Your task to perform on an android device: Go to calendar. Show me events next week Image 0: 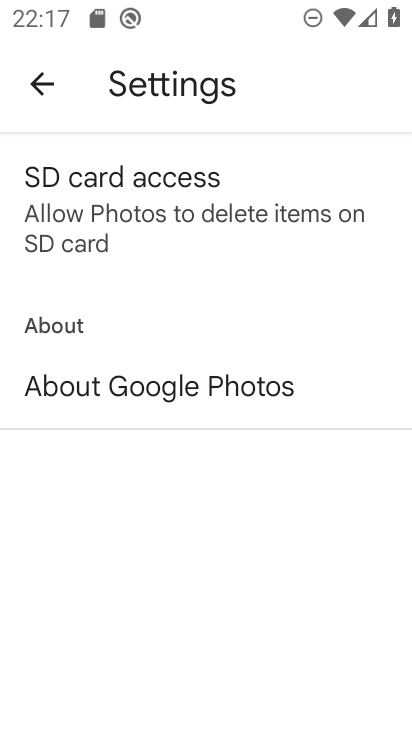
Step 0: press home button
Your task to perform on an android device: Go to calendar. Show me events next week Image 1: 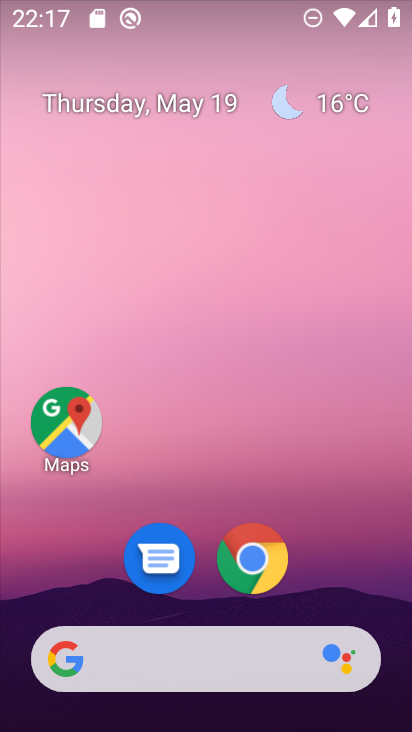
Step 1: drag from (227, 722) to (227, 139)
Your task to perform on an android device: Go to calendar. Show me events next week Image 2: 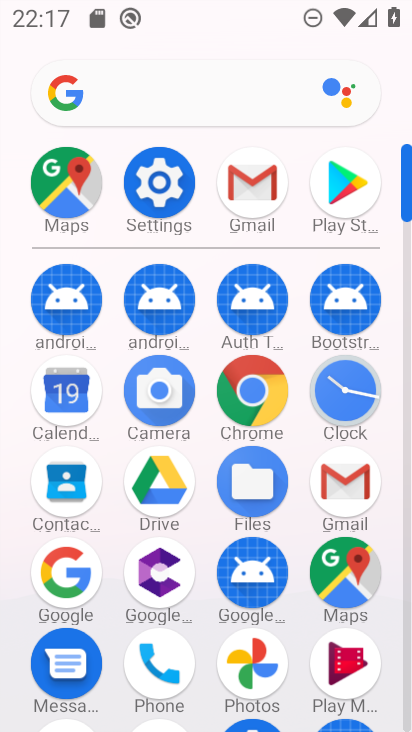
Step 2: click (52, 392)
Your task to perform on an android device: Go to calendar. Show me events next week Image 3: 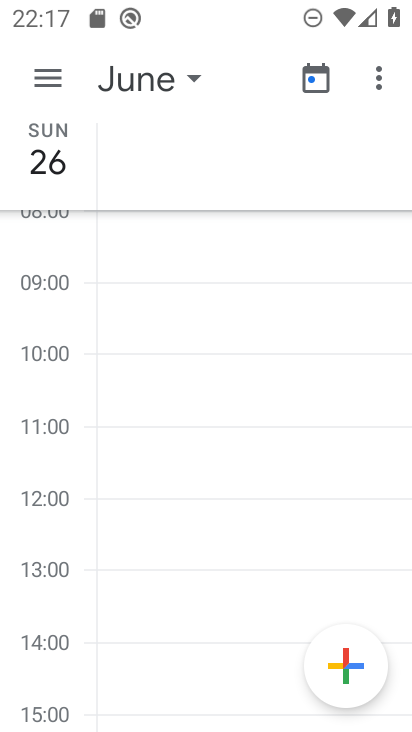
Step 3: click (152, 82)
Your task to perform on an android device: Go to calendar. Show me events next week Image 4: 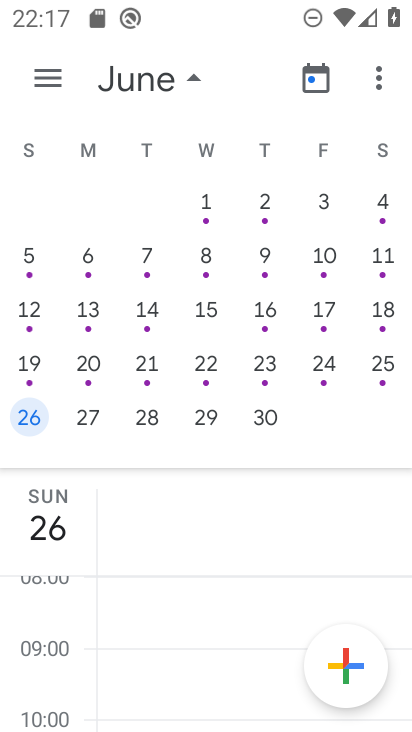
Step 4: drag from (326, 308) to (268, 305)
Your task to perform on an android device: Go to calendar. Show me events next week Image 5: 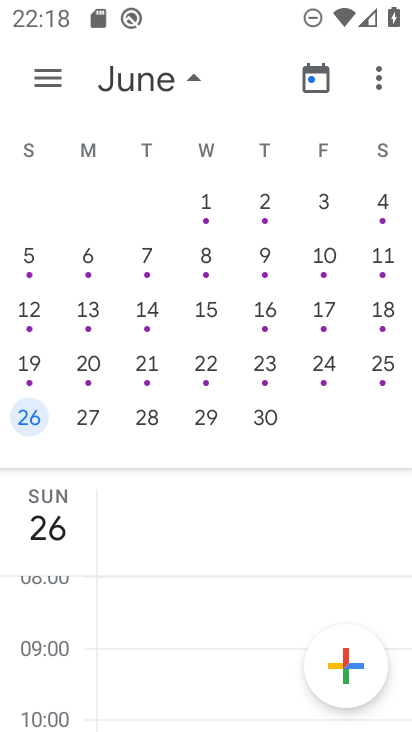
Step 5: drag from (22, 320) to (281, 306)
Your task to perform on an android device: Go to calendar. Show me events next week Image 6: 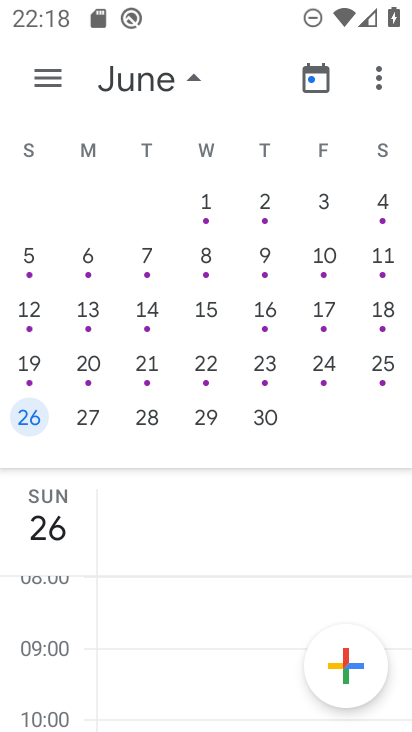
Step 6: drag from (56, 294) to (341, 275)
Your task to perform on an android device: Go to calendar. Show me events next week Image 7: 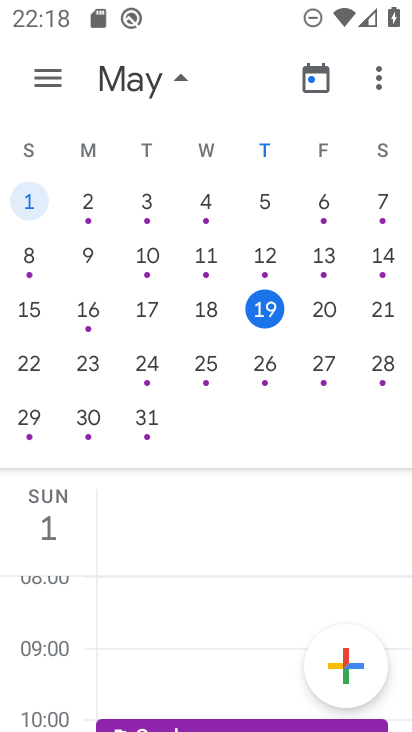
Step 7: click (92, 361)
Your task to perform on an android device: Go to calendar. Show me events next week Image 8: 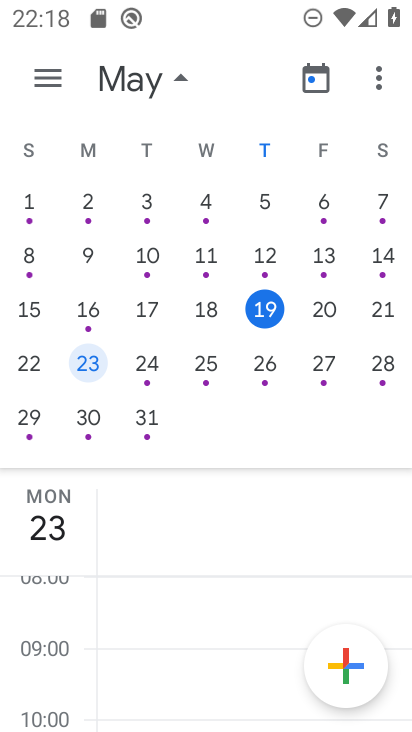
Step 8: click (87, 364)
Your task to perform on an android device: Go to calendar. Show me events next week Image 9: 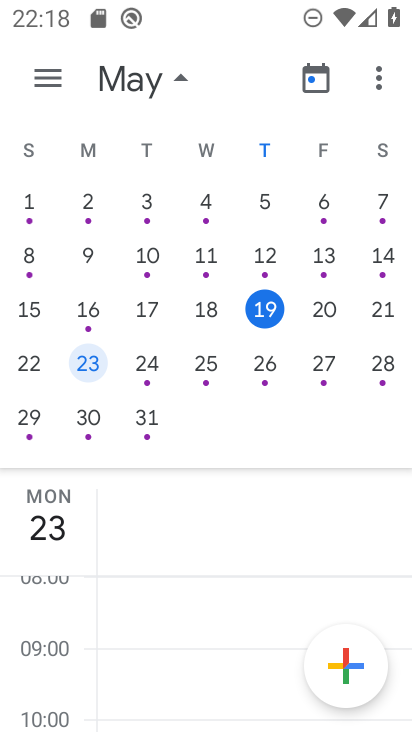
Step 9: click (43, 76)
Your task to perform on an android device: Go to calendar. Show me events next week Image 10: 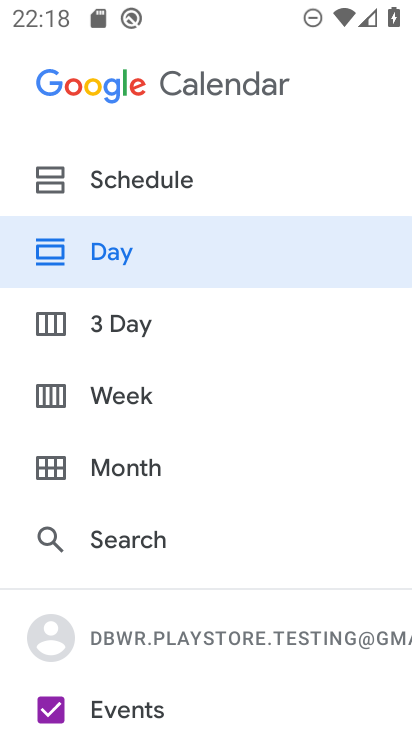
Step 10: click (127, 390)
Your task to perform on an android device: Go to calendar. Show me events next week Image 11: 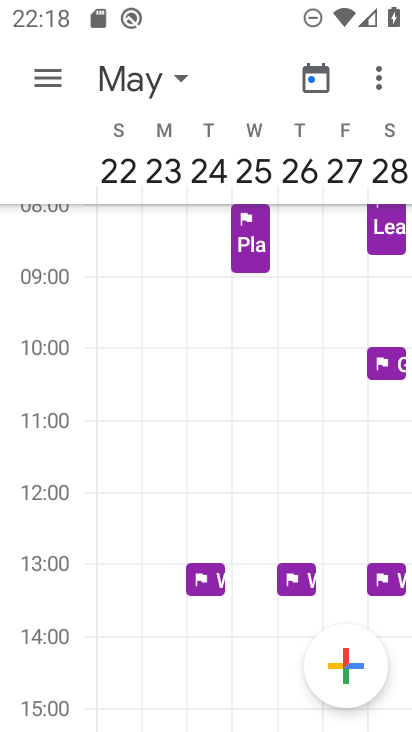
Step 11: task complete